Your task to perform on an android device: Go to Wikipedia Image 0: 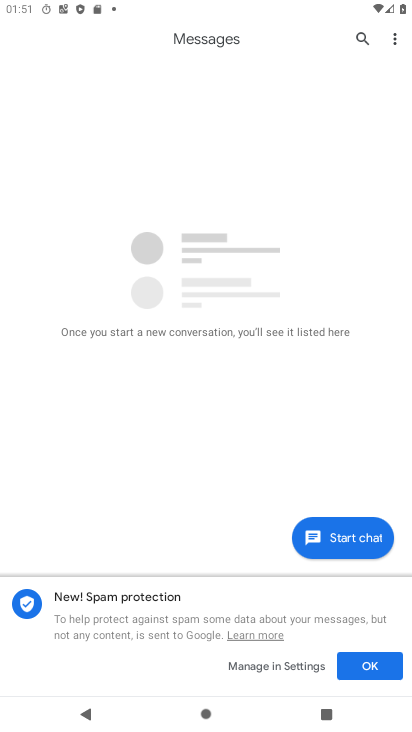
Step 0: press home button
Your task to perform on an android device: Go to Wikipedia Image 1: 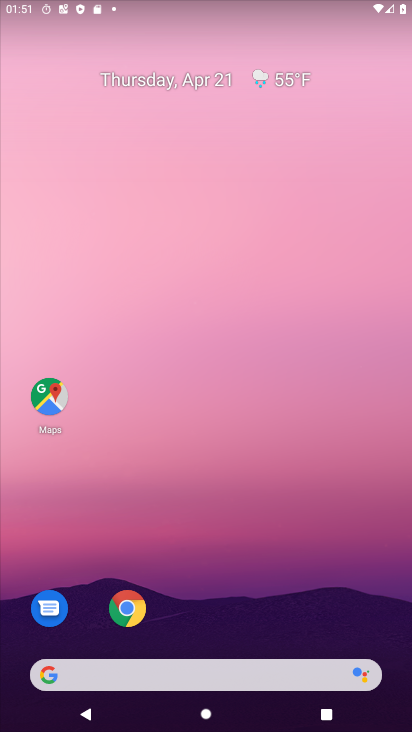
Step 1: drag from (156, 517) to (107, 98)
Your task to perform on an android device: Go to Wikipedia Image 2: 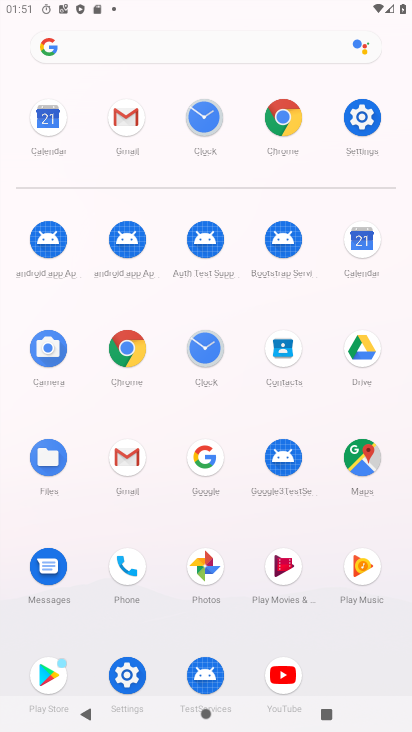
Step 2: click (127, 340)
Your task to perform on an android device: Go to Wikipedia Image 3: 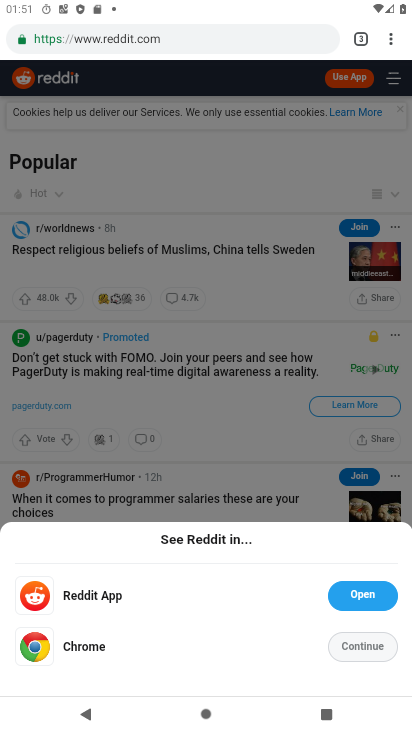
Step 3: click (360, 38)
Your task to perform on an android device: Go to Wikipedia Image 4: 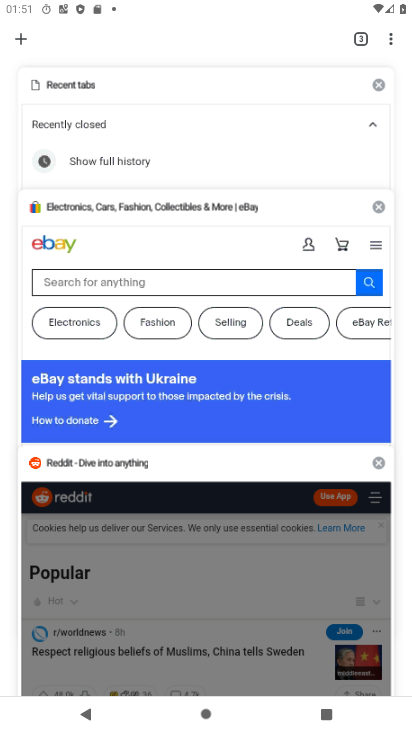
Step 4: click (22, 39)
Your task to perform on an android device: Go to Wikipedia Image 5: 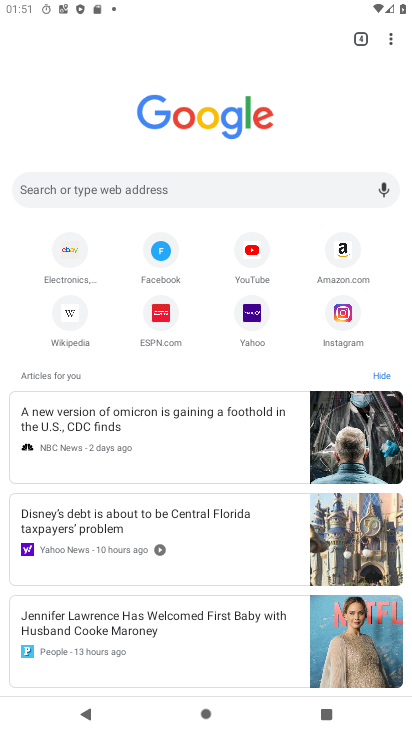
Step 5: click (69, 316)
Your task to perform on an android device: Go to Wikipedia Image 6: 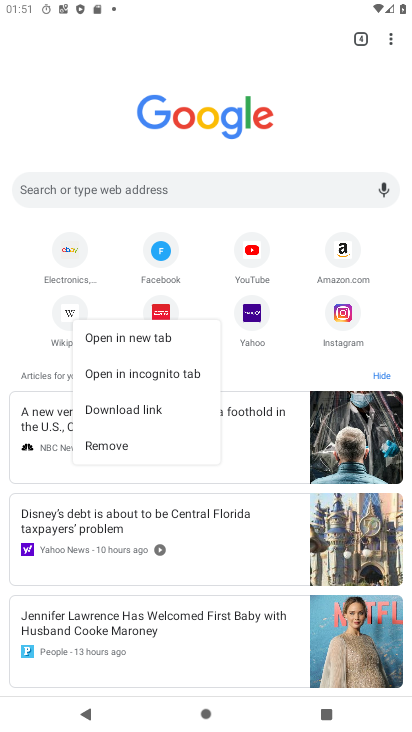
Step 6: click (68, 316)
Your task to perform on an android device: Go to Wikipedia Image 7: 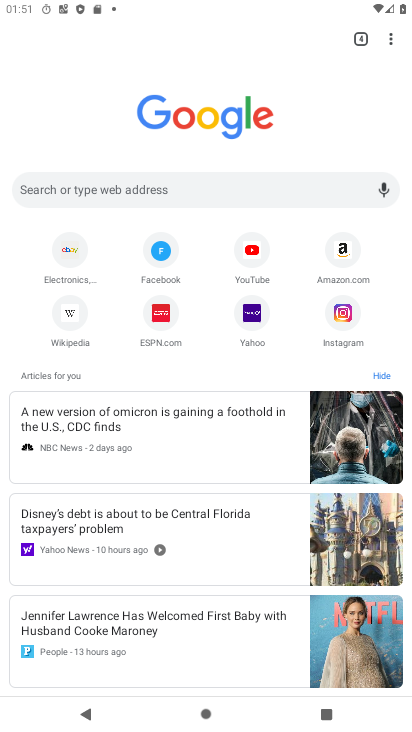
Step 7: click (74, 317)
Your task to perform on an android device: Go to Wikipedia Image 8: 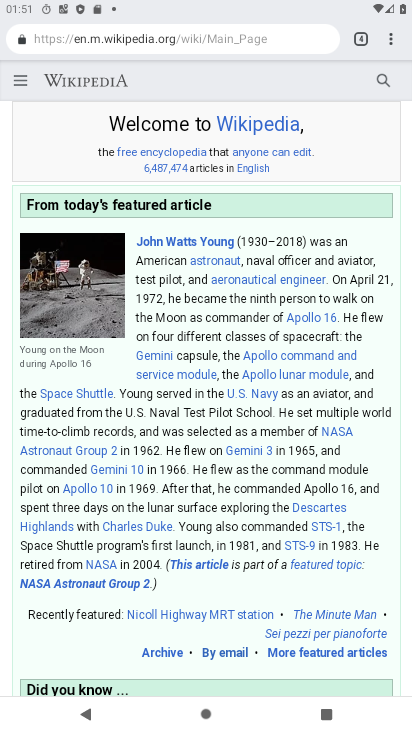
Step 8: task complete